Your task to perform on an android device: open sync settings in chrome Image 0: 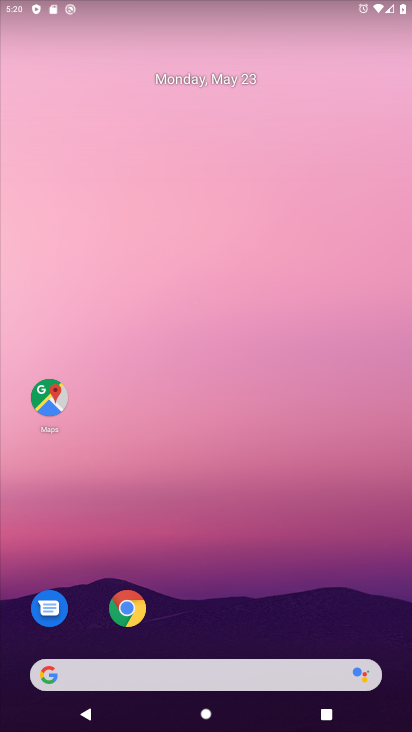
Step 0: click (128, 613)
Your task to perform on an android device: open sync settings in chrome Image 1: 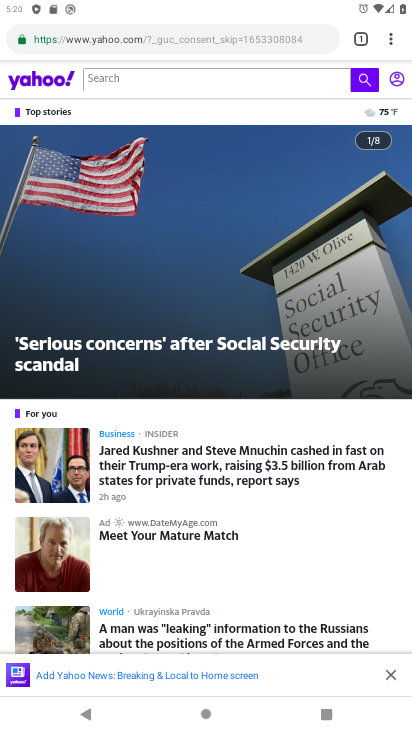
Step 1: click (395, 45)
Your task to perform on an android device: open sync settings in chrome Image 2: 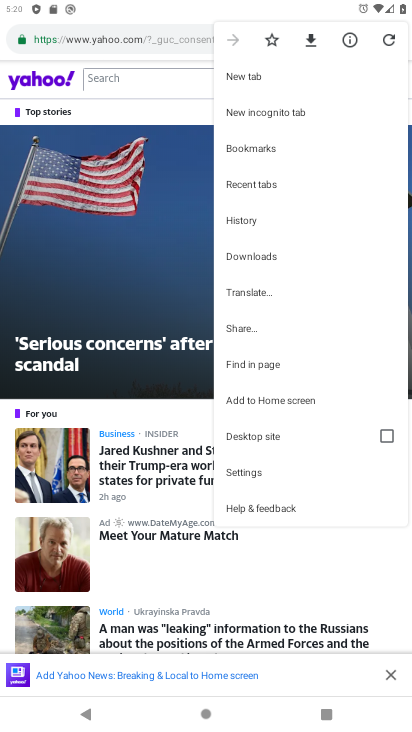
Step 2: click (276, 474)
Your task to perform on an android device: open sync settings in chrome Image 3: 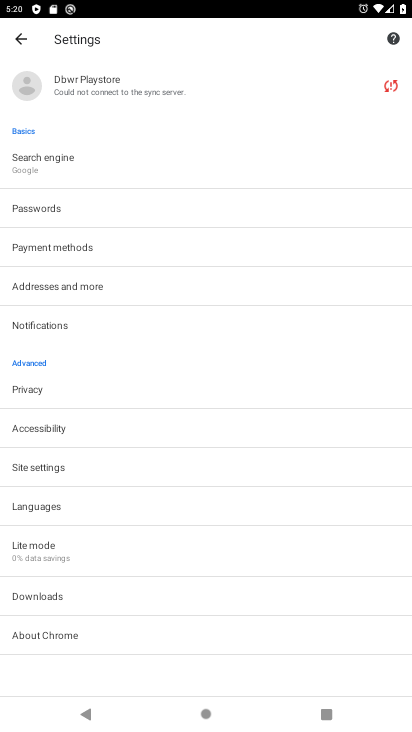
Step 3: click (84, 94)
Your task to perform on an android device: open sync settings in chrome Image 4: 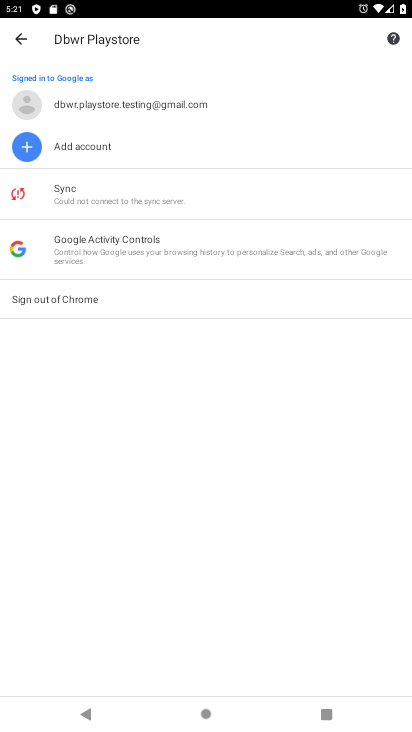
Step 4: click (93, 194)
Your task to perform on an android device: open sync settings in chrome Image 5: 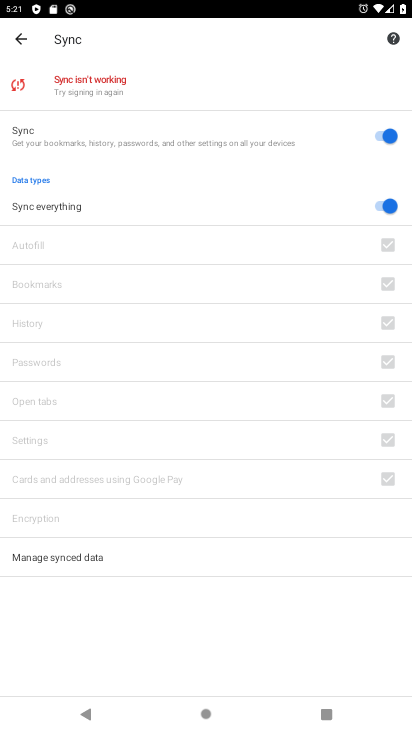
Step 5: task complete